Your task to perform on an android device: open device folders in google photos Image 0: 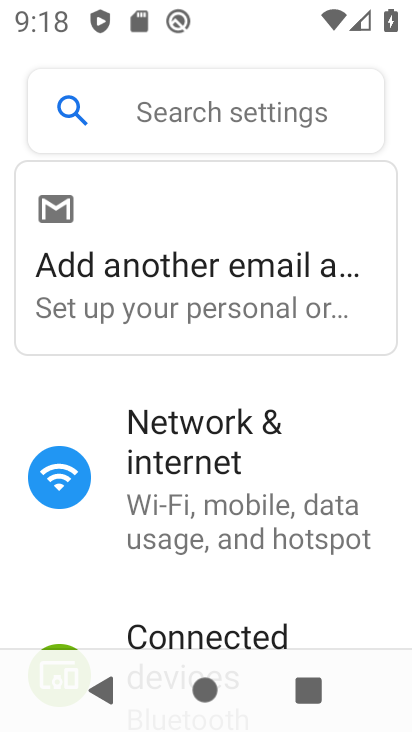
Step 0: press home button
Your task to perform on an android device: open device folders in google photos Image 1: 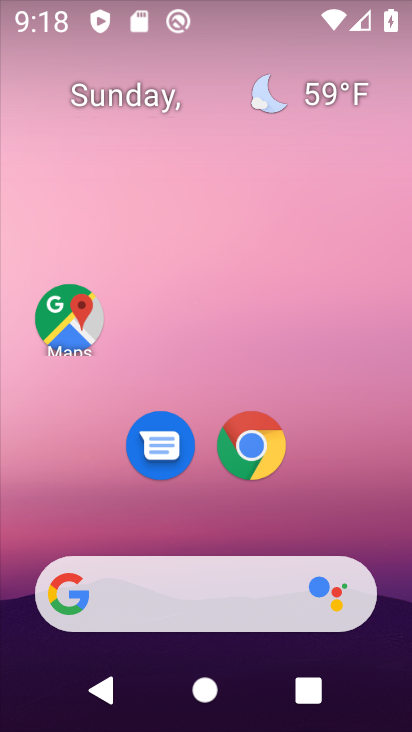
Step 1: drag from (83, 550) to (184, 114)
Your task to perform on an android device: open device folders in google photos Image 2: 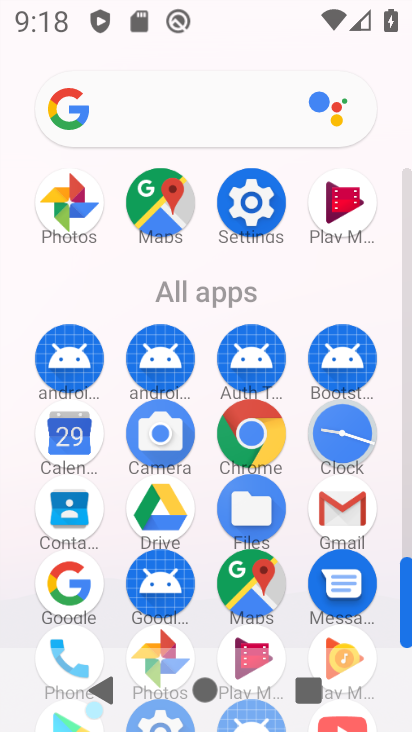
Step 2: drag from (199, 647) to (260, 412)
Your task to perform on an android device: open device folders in google photos Image 3: 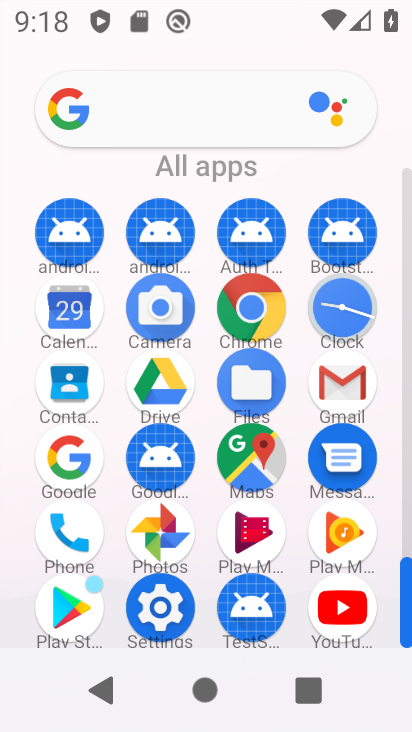
Step 3: click (163, 538)
Your task to perform on an android device: open device folders in google photos Image 4: 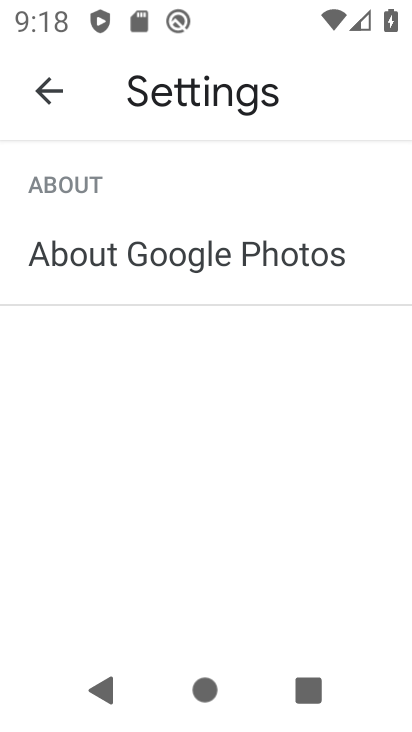
Step 4: click (51, 89)
Your task to perform on an android device: open device folders in google photos Image 5: 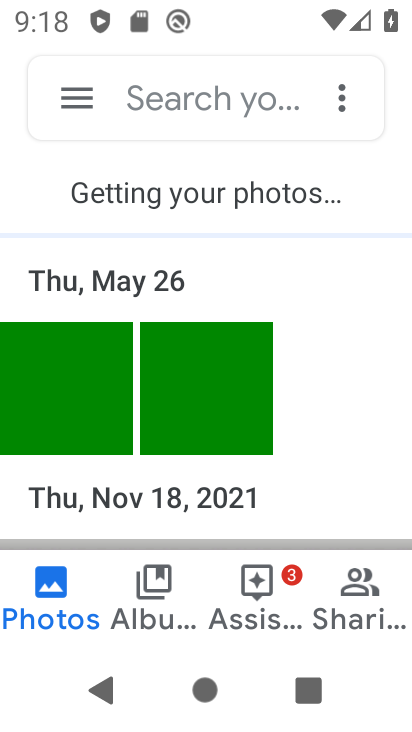
Step 5: click (87, 110)
Your task to perform on an android device: open device folders in google photos Image 6: 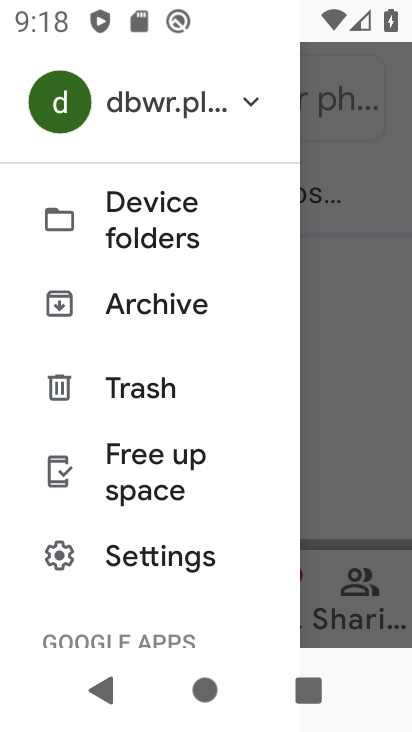
Step 6: click (248, 240)
Your task to perform on an android device: open device folders in google photos Image 7: 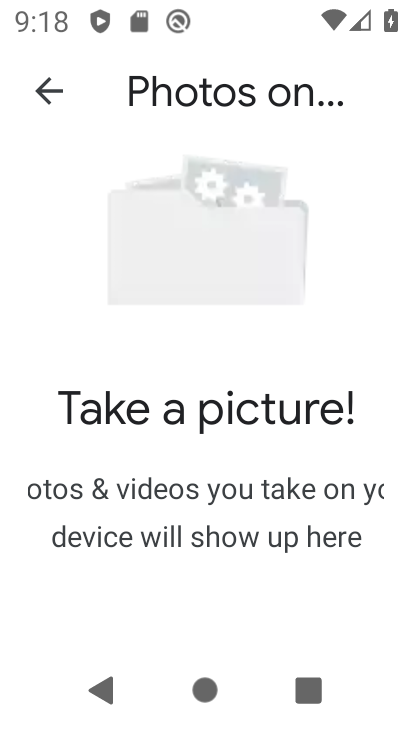
Step 7: task complete